Your task to perform on an android device: Open battery settings Image 0: 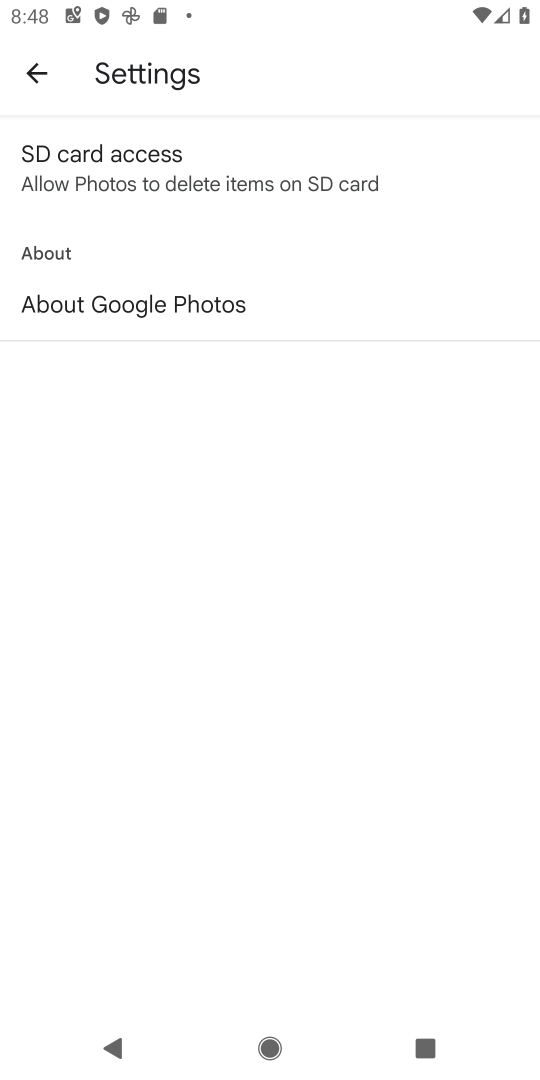
Step 0: press home button
Your task to perform on an android device: Open battery settings Image 1: 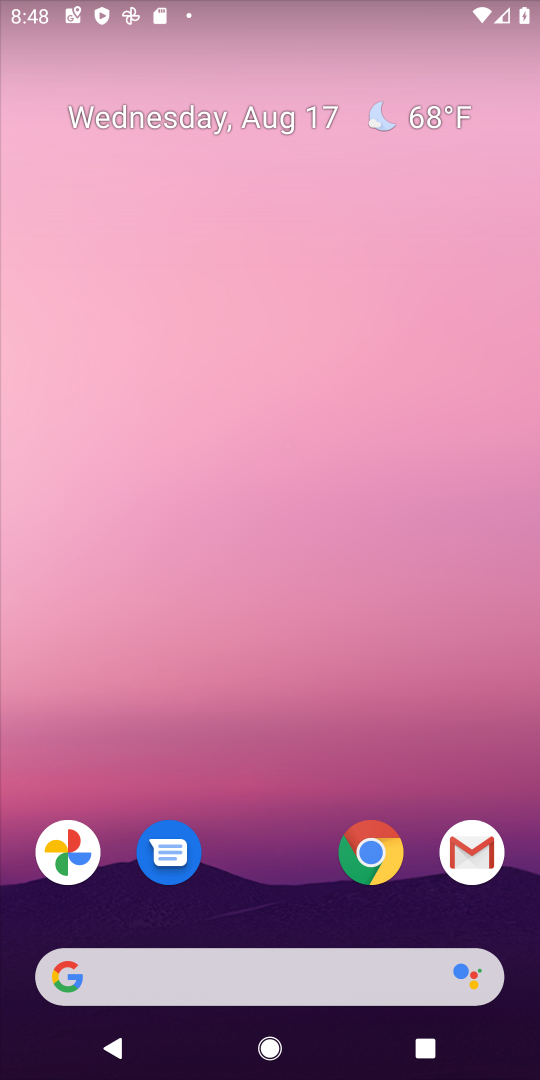
Step 1: drag from (292, 918) to (218, 173)
Your task to perform on an android device: Open battery settings Image 2: 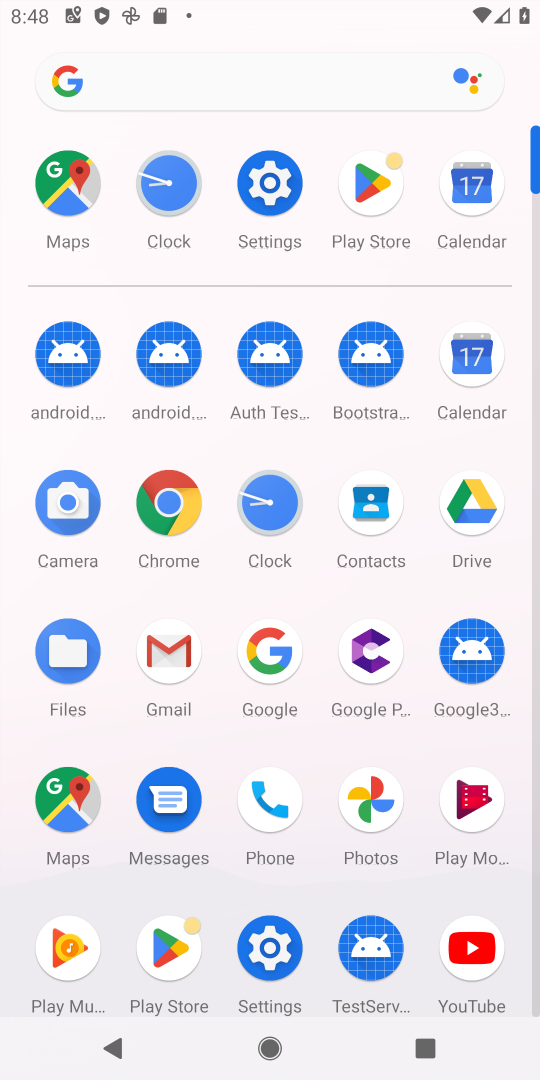
Step 2: click (270, 186)
Your task to perform on an android device: Open battery settings Image 3: 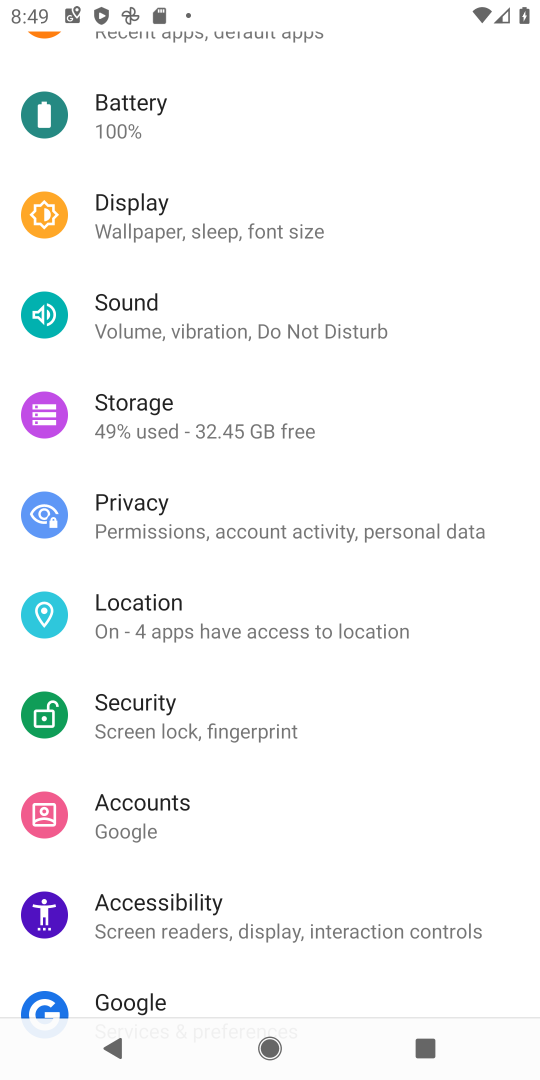
Step 3: click (135, 105)
Your task to perform on an android device: Open battery settings Image 4: 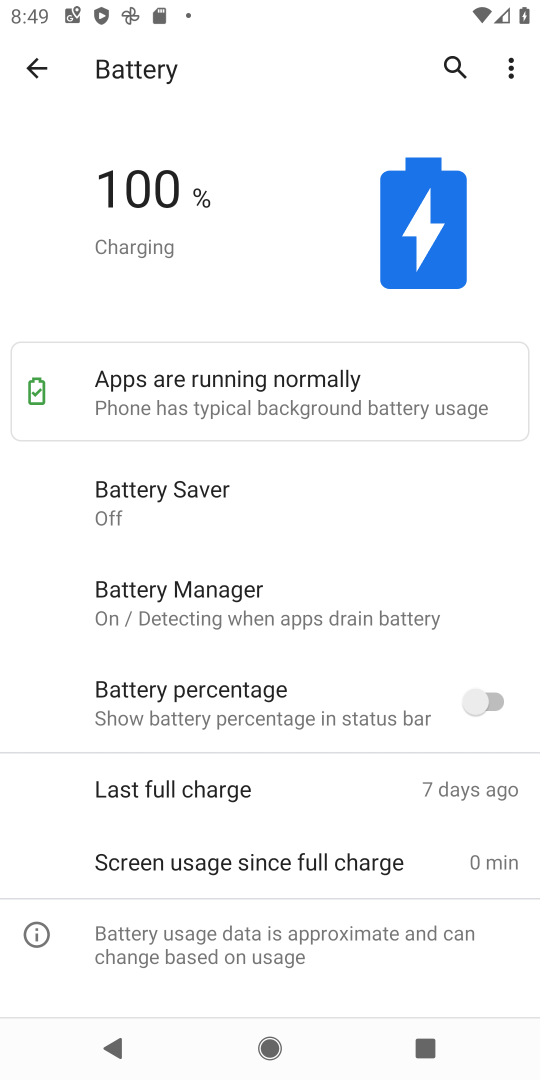
Step 4: task complete